Your task to perform on an android device: Toggle the flashlight Image 0: 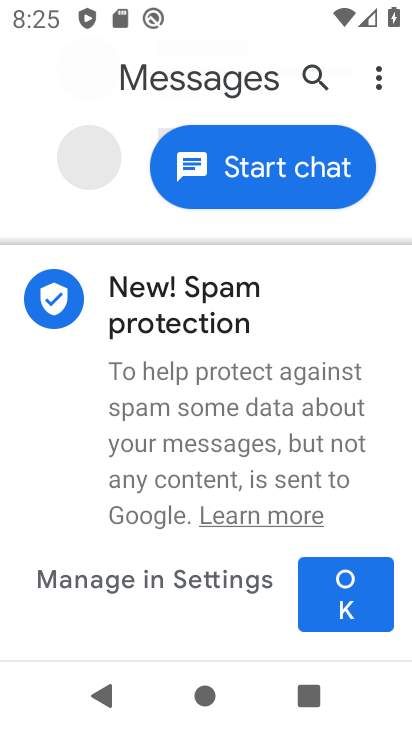
Step 0: press back button
Your task to perform on an android device: Toggle the flashlight Image 1: 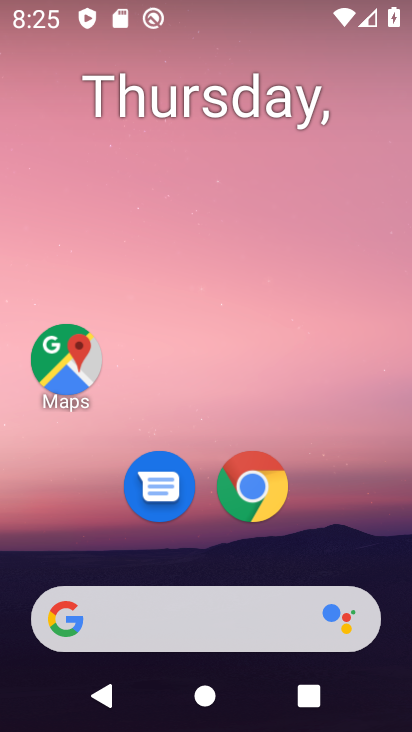
Step 1: drag from (187, 517) to (257, 13)
Your task to perform on an android device: Toggle the flashlight Image 2: 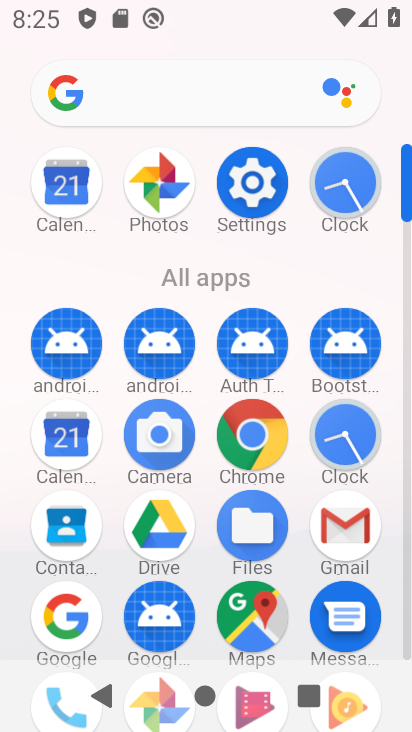
Step 2: click (242, 194)
Your task to perform on an android device: Toggle the flashlight Image 3: 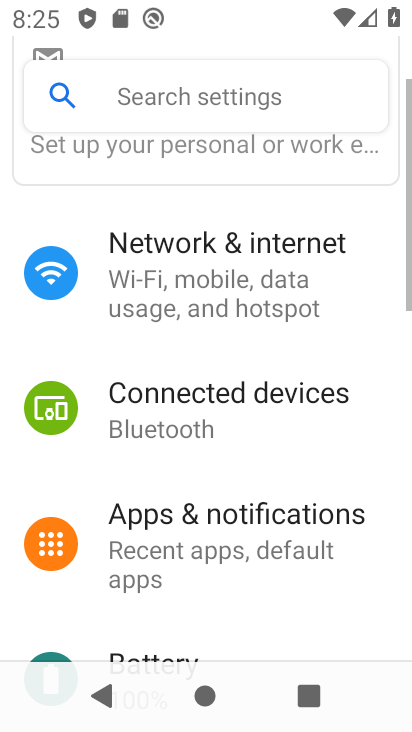
Step 3: click (182, 107)
Your task to perform on an android device: Toggle the flashlight Image 4: 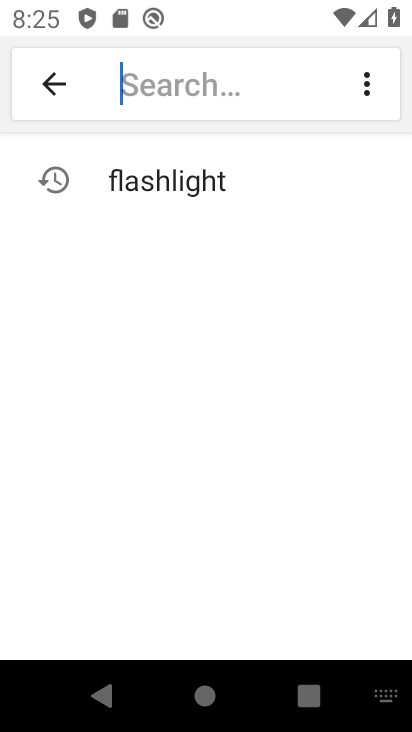
Step 4: type "flashlight"
Your task to perform on an android device: Toggle the flashlight Image 5: 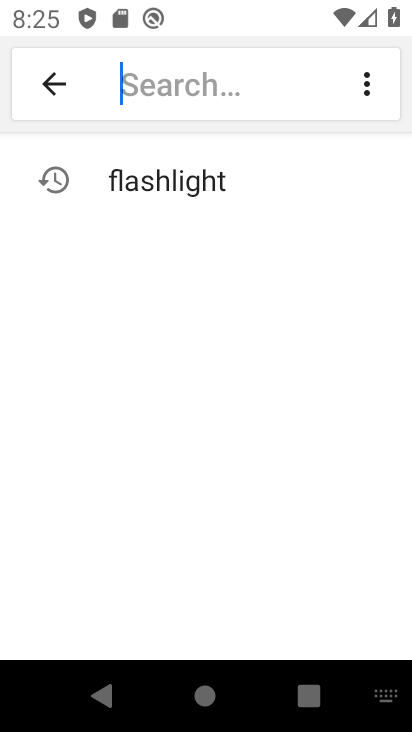
Step 5: click (145, 180)
Your task to perform on an android device: Toggle the flashlight Image 6: 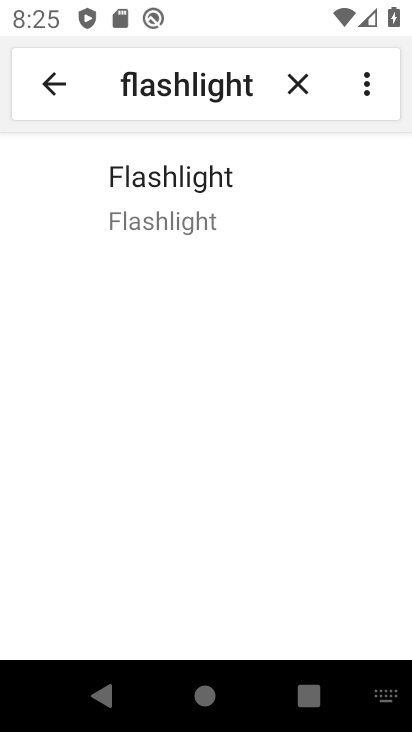
Step 6: task complete